Your task to perform on an android device: turn off picture-in-picture Image 0: 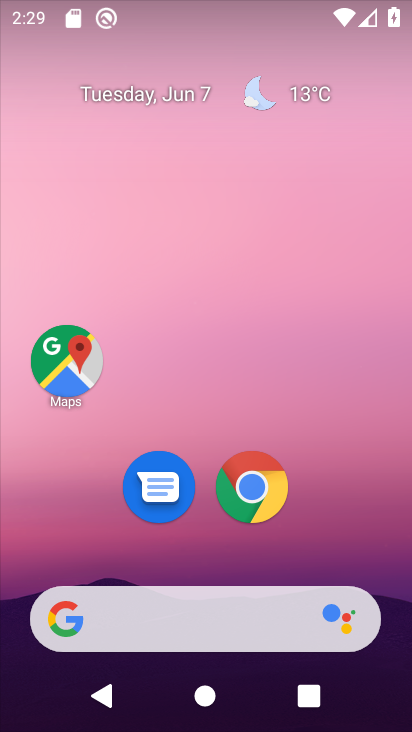
Step 0: click (259, 495)
Your task to perform on an android device: turn off picture-in-picture Image 1: 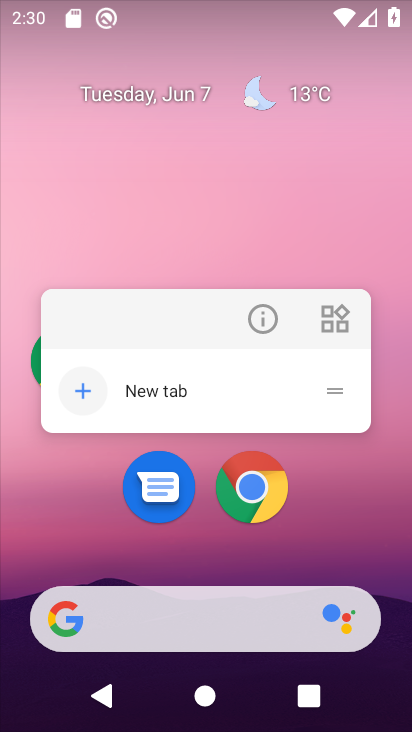
Step 1: click (263, 335)
Your task to perform on an android device: turn off picture-in-picture Image 2: 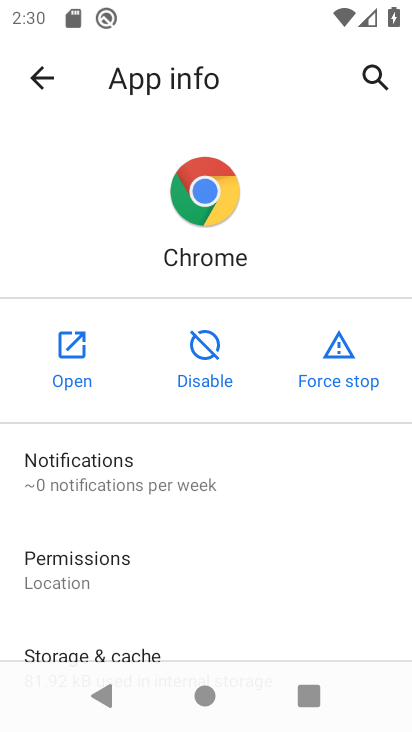
Step 2: drag from (355, 643) to (216, 106)
Your task to perform on an android device: turn off picture-in-picture Image 3: 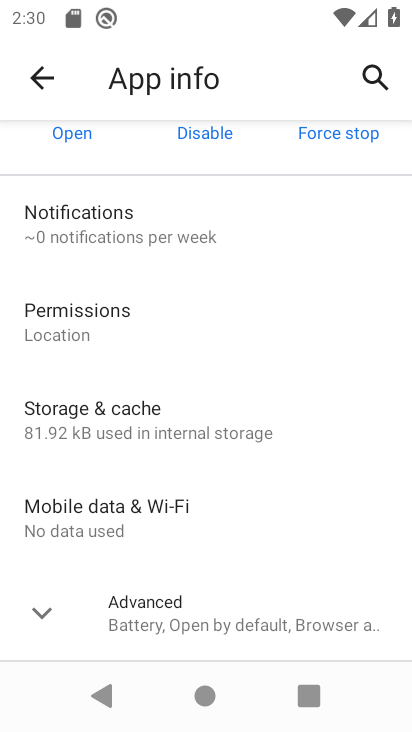
Step 3: click (298, 623)
Your task to perform on an android device: turn off picture-in-picture Image 4: 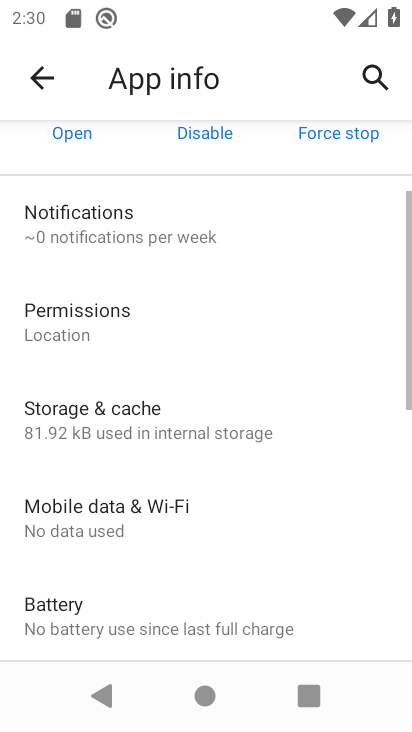
Step 4: drag from (298, 623) to (220, 167)
Your task to perform on an android device: turn off picture-in-picture Image 5: 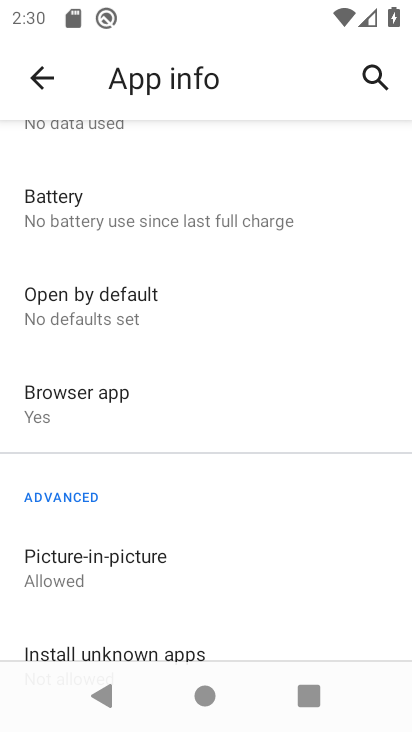
Step 5: click (206, 578)
Your task to perform on an android device: turn off picture-in-picture Image 6: 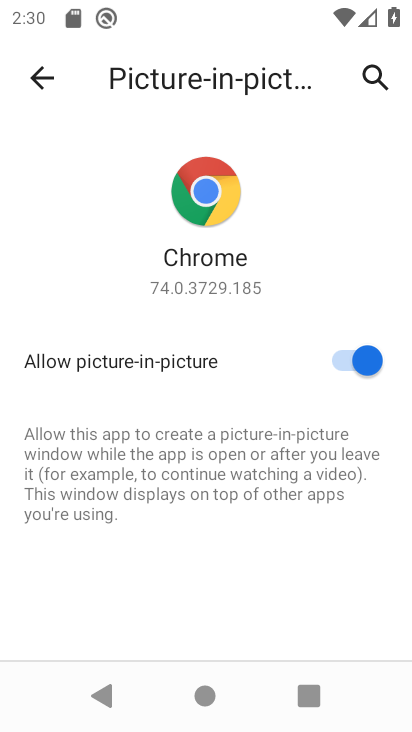
Step 6: click (359, 354)
Your task to perform on an android device: turn off picture-in-picture Image 7: 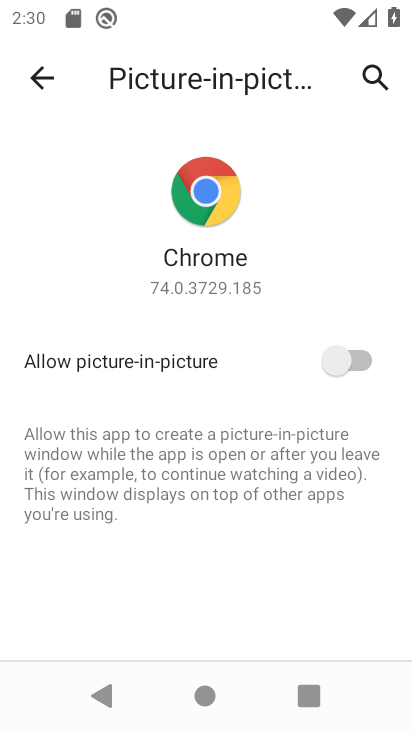
Step 7: task complete